Your task to perform on an android device: toggle javascript in the chrome app Image 0: 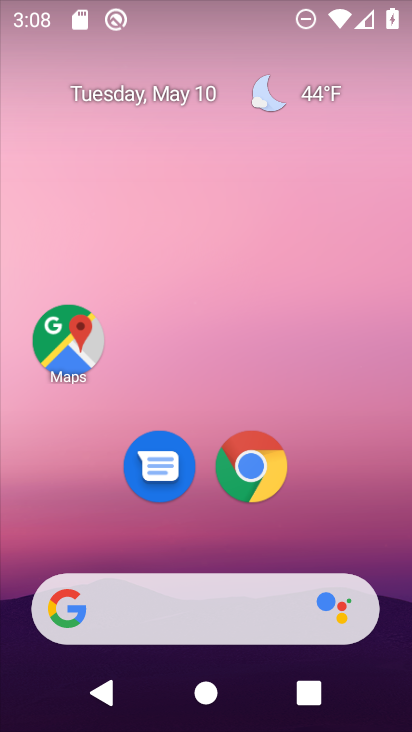
Step 0: click (259, 466)
Your task to perform on an android device: toggle javascript in the chrome app Image 1: 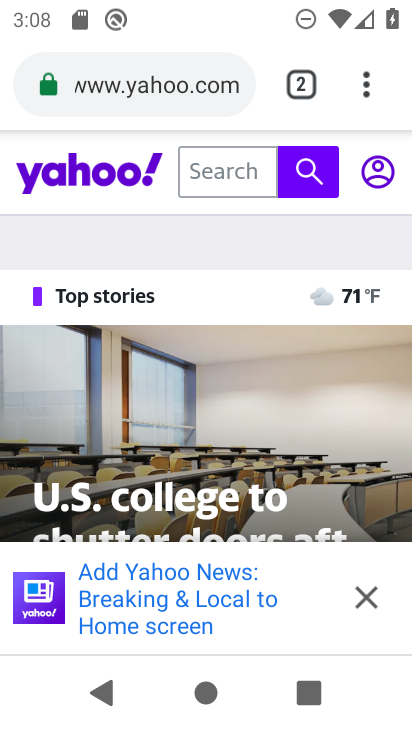
Step 1: click (355, 79)
Your task to perform on an android device: toggle javascript in the chrome app Image 2: 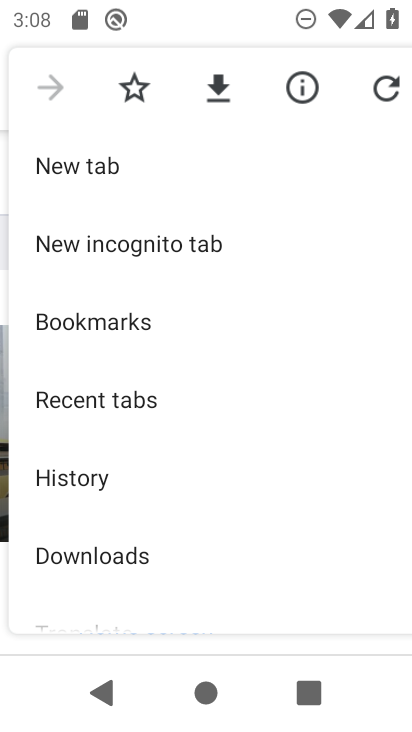
Step 2: drag from (106, 575) to (157, 188)
Your task to perform on an android device: toggle javascript in the chrome app Image 3: 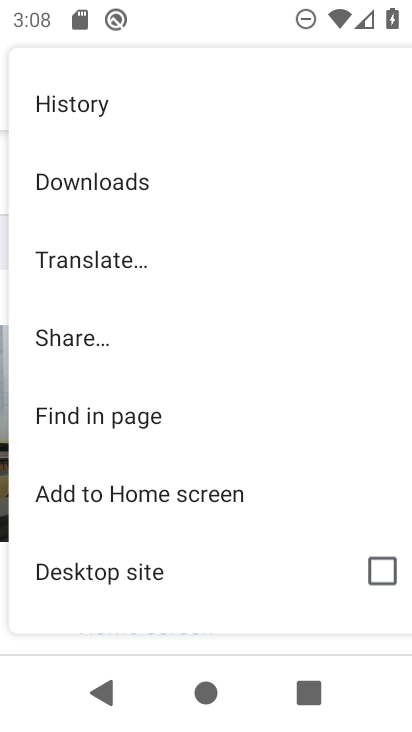
Step 3: drag from (80, 585) to (140, 235)
Your task to perform on an android device: toggle javascript in the chrome app Image 4: 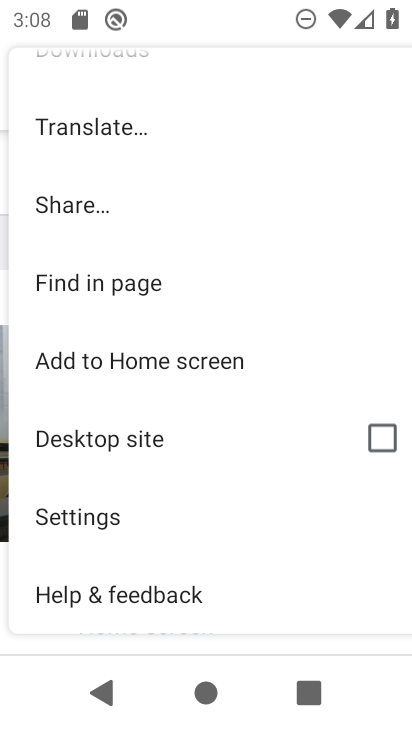
Step 4: click (105, 522)
Your task to perform on an android device: toggle javascript in the chrome app Image 5: 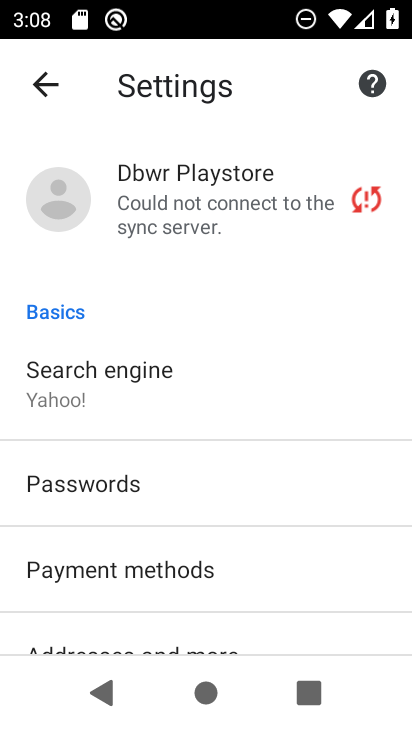
Step 5: drag from (81, 575) to (133, 205)
Your task to perform on an android device: toggle javascript in the chrome app Image 6: 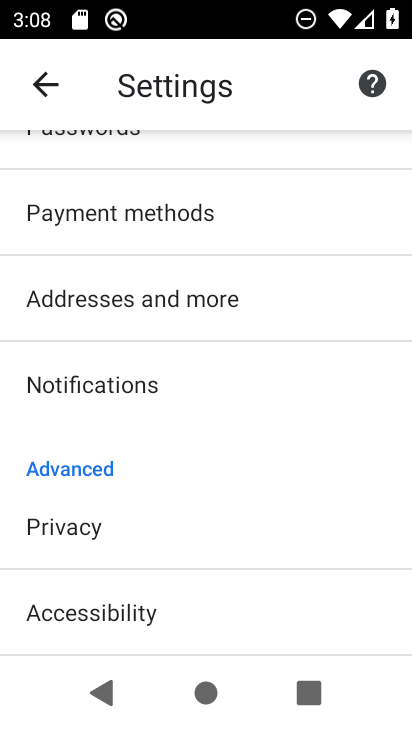
Step 6: drag from (47, 560) to (121, 252)
Your task to perform on an android device: toggle javascript in the chrome app Image 7: 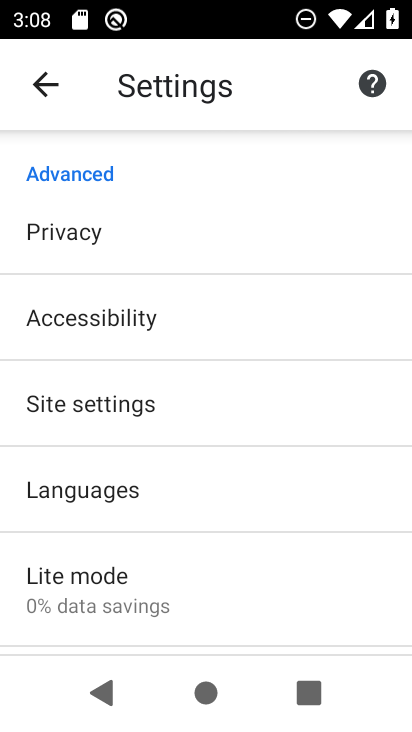
Step 7: click (106, 424)
Your task to perform on an android device: toggle javascript in the chrome app Image 8: 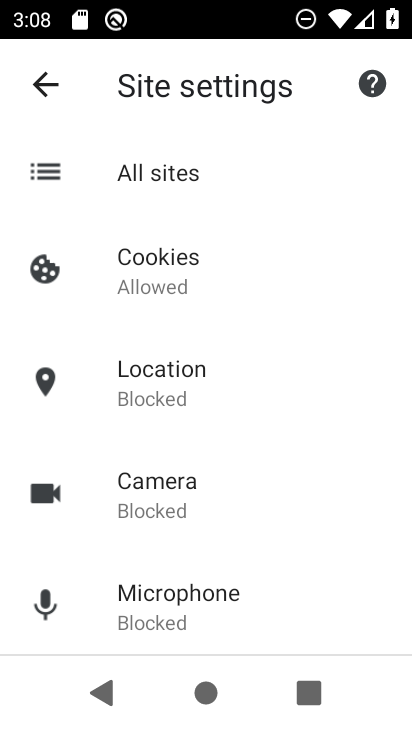
Step 8: drag from (149, 573) to (216, 331)
Your task to perform on an android device: toggle javascript in the chrome app Image 9: 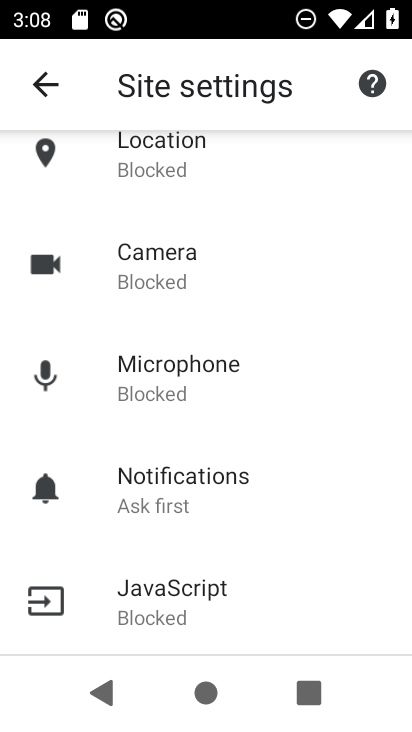
Step 9: click (175, 595)
Your task to perform on an android device: toggle javascript in the chrome app Image 10: 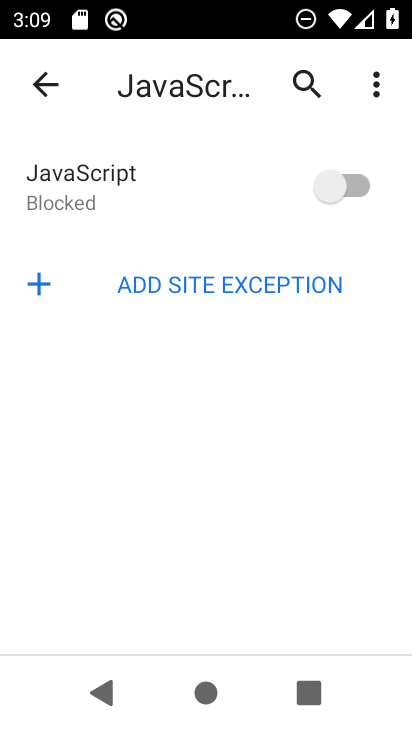
Step 10: click (332, 200)
Your task to perform on an android device: toggle javascript in the chrome app Image 11: 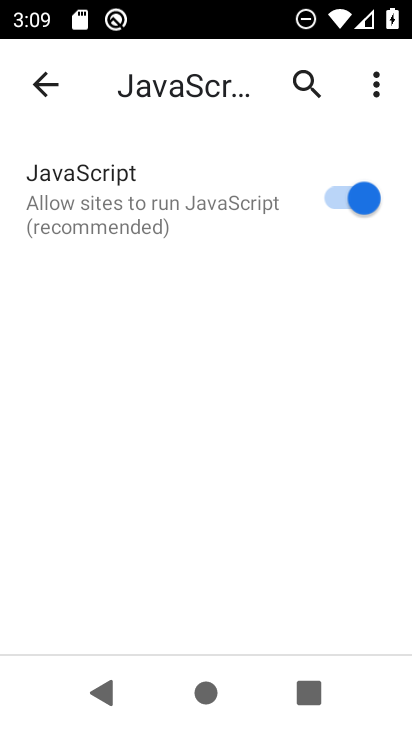
Step 11: task complete